Your task to perform on an android device: Go to Reddit.com Image 0: 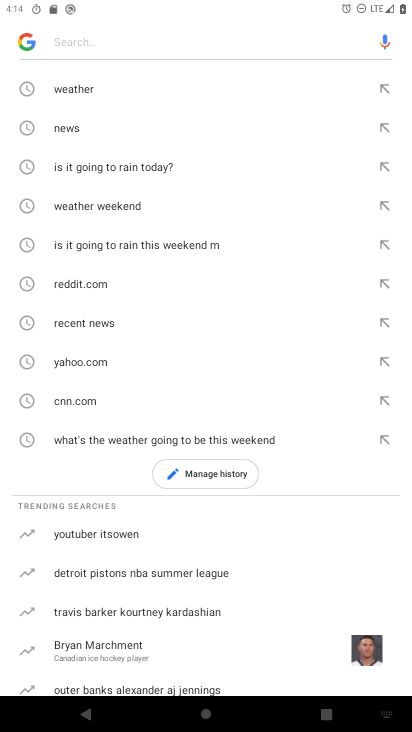
Step 0: press home button
Your task to perform on an android device: Go to Reddit.com Image 1: 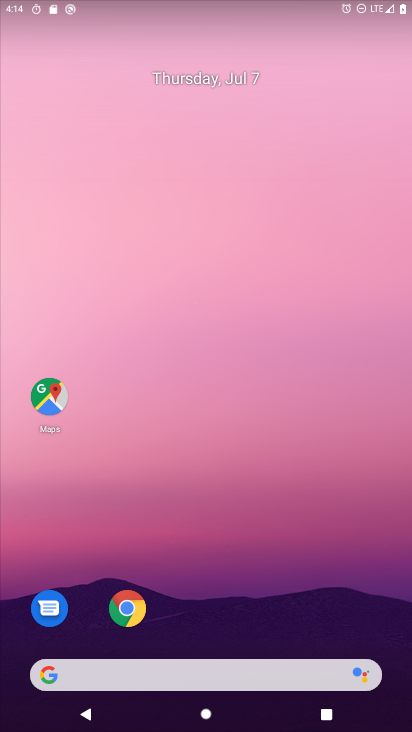
Step 1: click (129, 611)
Your task to perform on an android device: Go to Reddit.com Image 2: 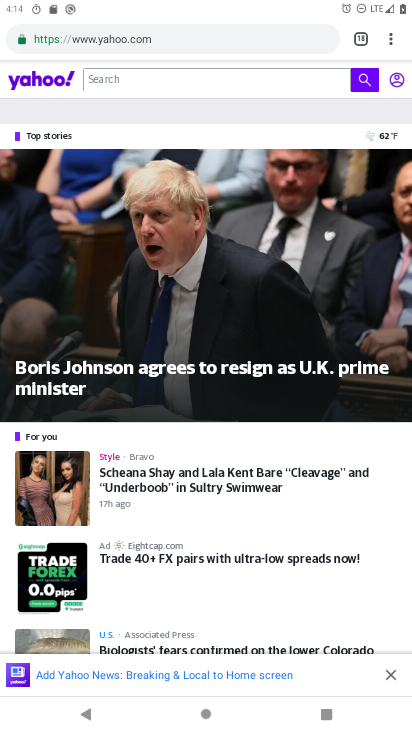
Step 2: click (389, 41)
Your task to perform on an android device: Go to Reddit.com Image 3: 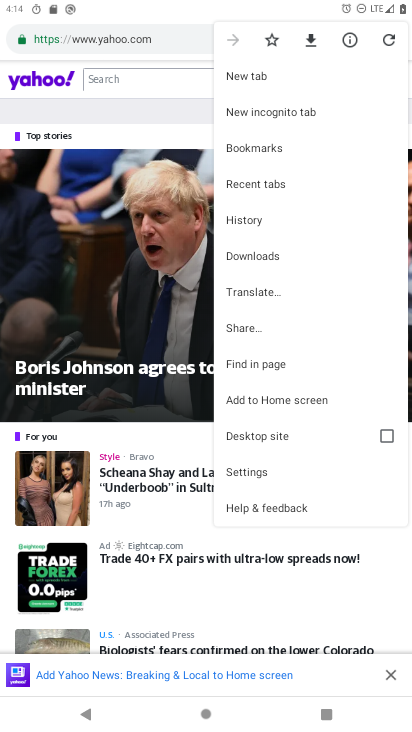
Step 3: click (251, 76)
Your task to perform on an android device: Go to Reddit.com Image 4: 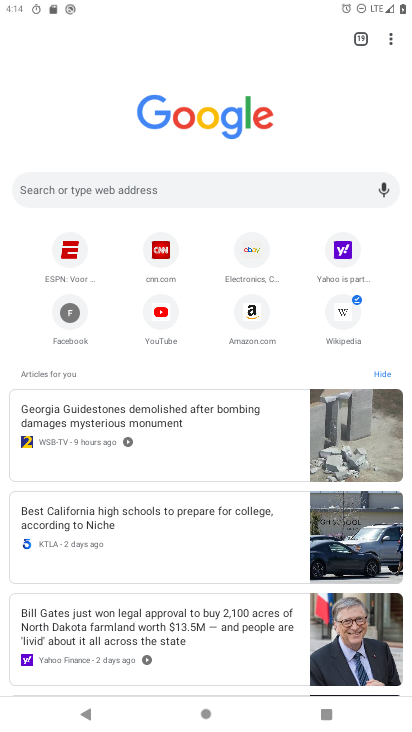
Step 4: click (177, 189)
Your task to perform on an android device: Go to Reddit.com Image 5: 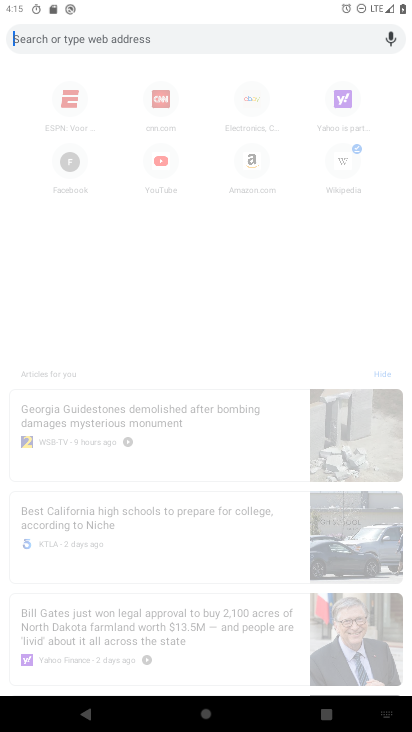
Step 5: type "Reddit.com"
Your task to perform on an android device: Go to Reddit.com Image 6: 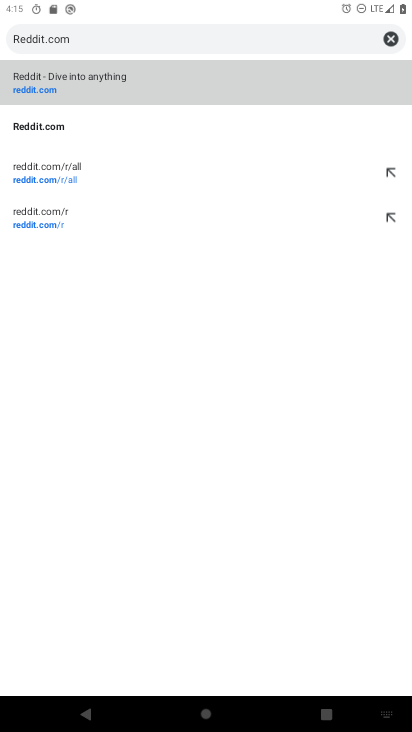
Step 6: click (72, 83)
Your task to perform on an android device: Go to Reddit.com Image 7: 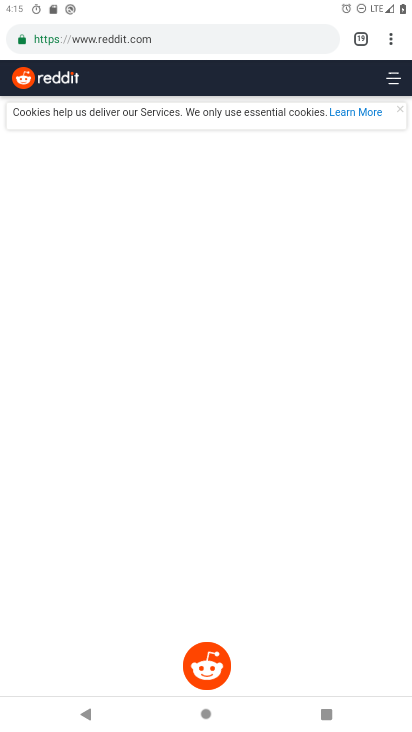
Step 7: task complete